Your task to perform on an android device: Is it going to rain this weekend? Image 0: 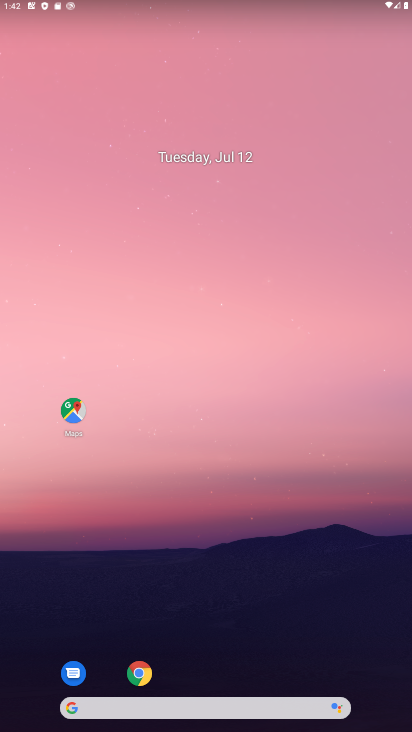
Step 0: drag from (171, 706) to (168, 276)
Your task to perform on an android device: Is it going to rain this weekend? Image 1: 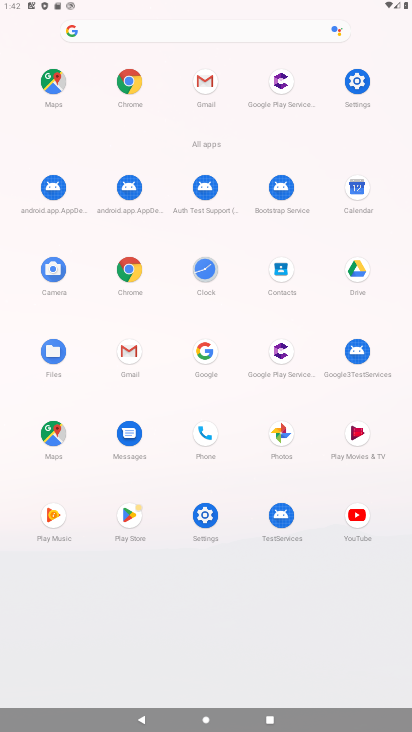
Step 1: click (207, 353)
Your task to perform on an android device: Is it going to rain this weekend? Image 2: 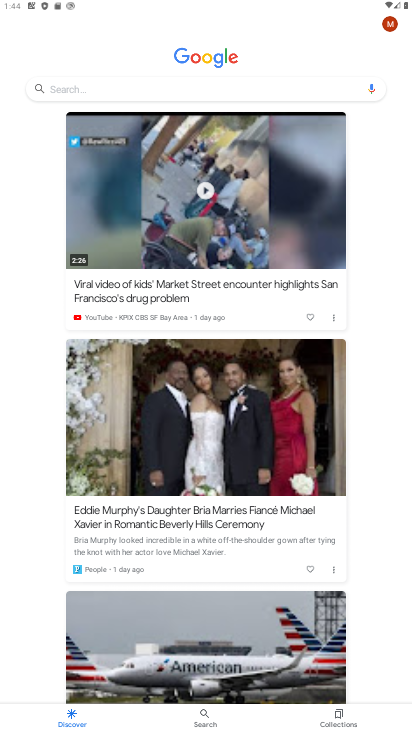
Step 2: click (183, 82)
Your task to perform on an android device: Is it going to rain this weekend? Image 3: 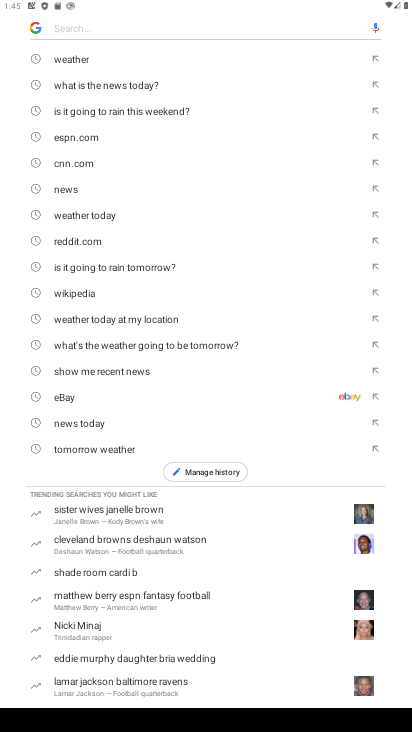
Step 3: click (155, 112)
Your task to perform on an android device: Is it going to rain this weekend? Image 4: 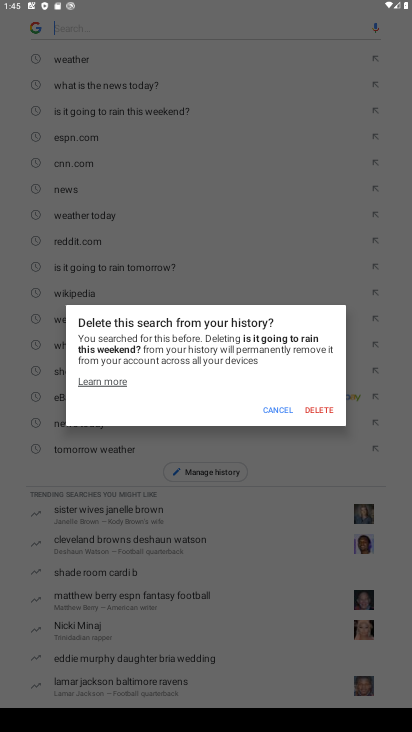
Step 4: click (160, 118)
Your task to perform on an android device: Is it going to rain this weekend? Image 5: 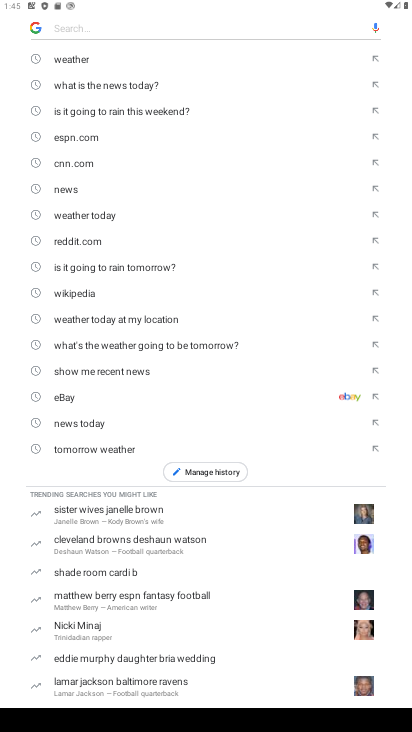
Step 5: click (160, 113)
Your task to perform on an android device: Is it going to rain this weekend? Image 6: 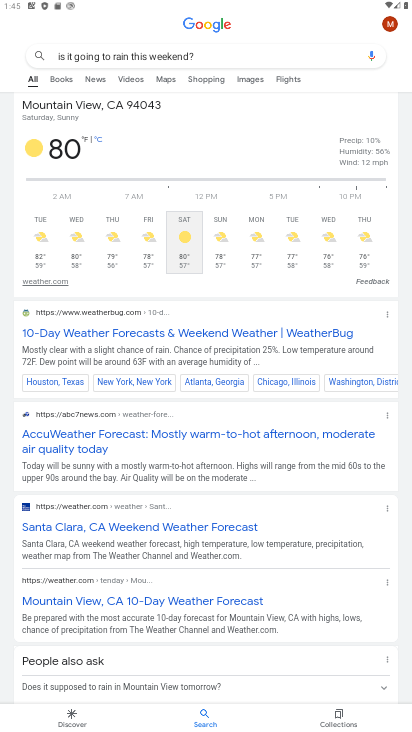
Step 6: task complete